Your task to perform on an android device: open a bookmark in the chrome app Image 0: 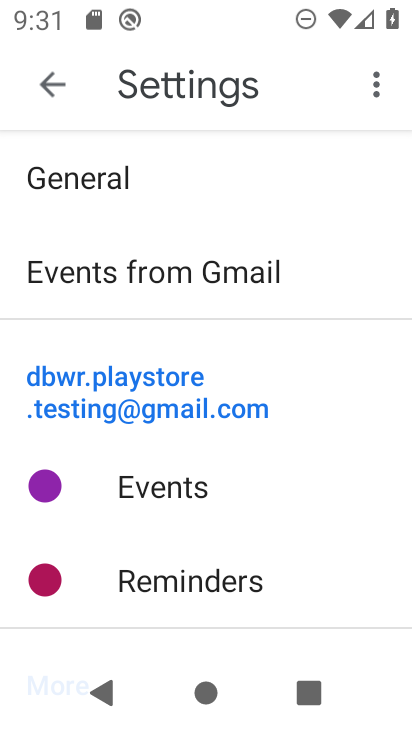
Step 0: press home button
Your task to perform on an android device: open a bookmark in the chrome app Image 1: 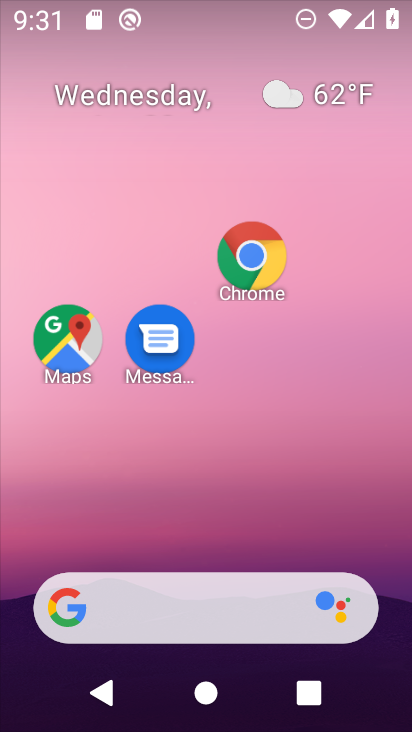
Step 1: click (252, 251)
Your task to perform on an android device: open a bookmark in the chrome app Image 2: 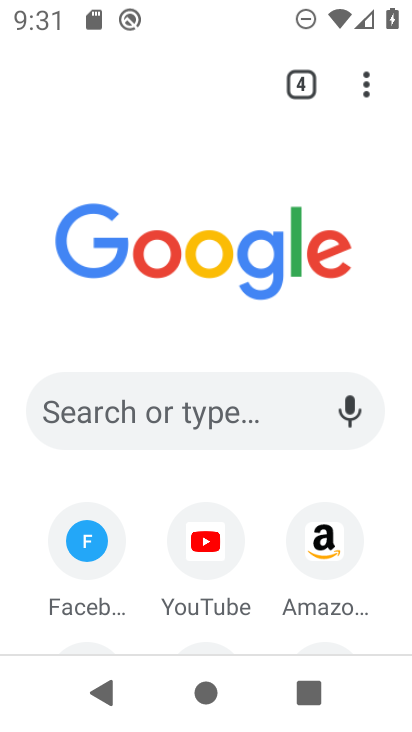
Step 2: click (363, 91)
Your task to perform on an android device: open a bookmark in the chrome app Image 3: 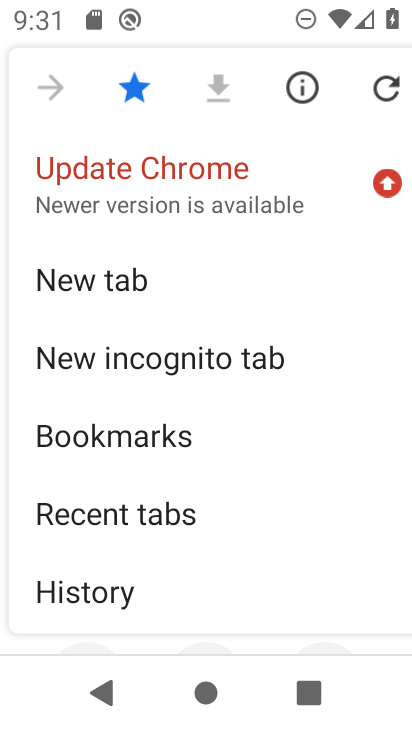
Step 3: click (166, 446)
Your task to perform on an android device: open a bookmark in the chrome app Image 4: 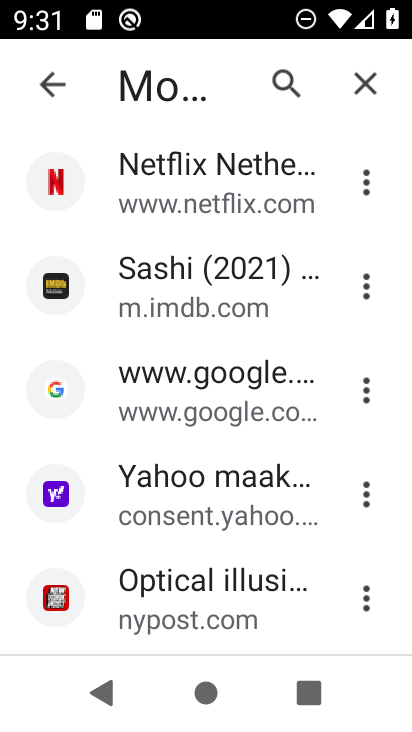
Step 4: click (201, 399)
Your task to perform on an android device: open a bookmark in the chrome app Image 5: 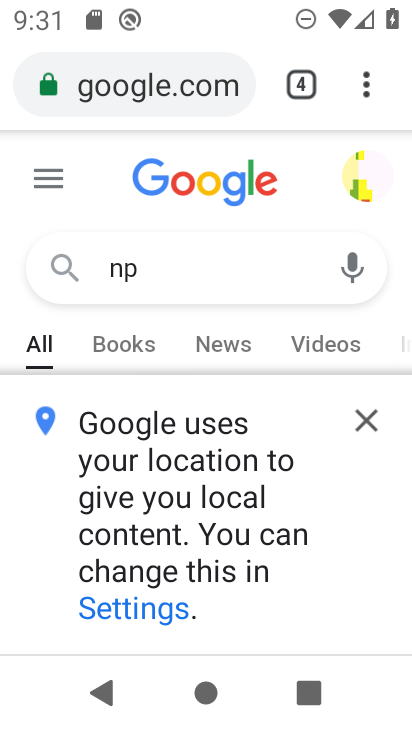
Step 5: click (362, 413)
Your task to perform on an android device: open a bookmark in the chrome app Image 6: 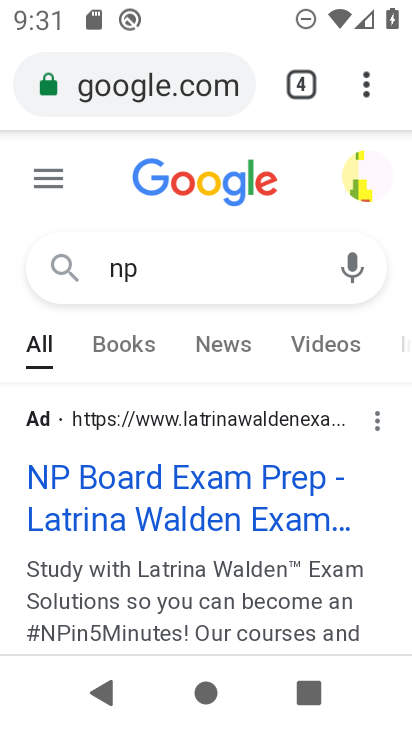
Step 6: task complete